Your task to perform on an android device: create a new album in the google photos Image 0: 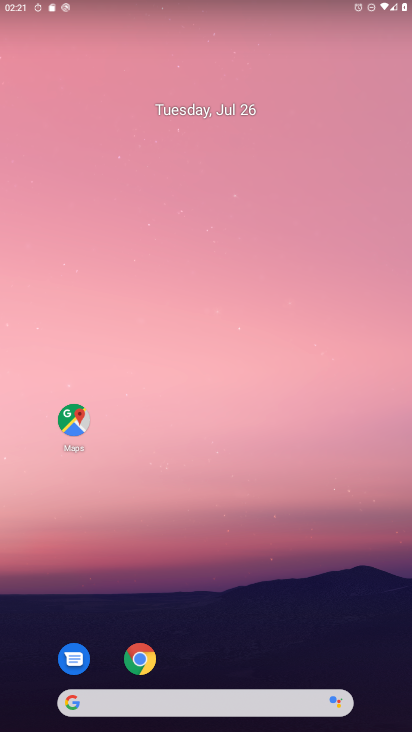
Step 0: press home button
Your task to perform on an android device: create a new album in the google photos Image 1: 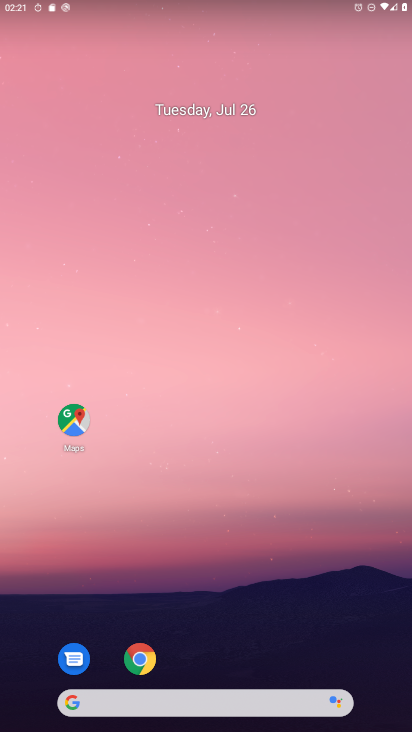
Step 1: press home button
Your task to perform on an android device: create a new album in the google photos Image 2: 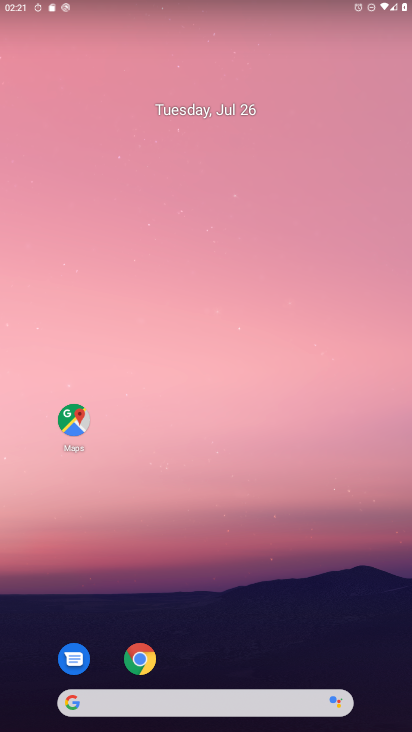
Step 2: drag from (312, 665) to (285, 37)
Your task to perform on an android device: create a new album in the google photos Image 3: 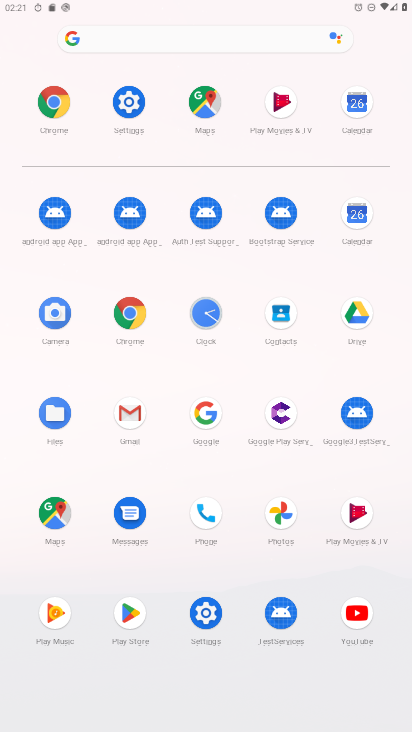
Step 3: click (290, 524)
Your task to perform on an android device: create a new album in the google photos Image 4: 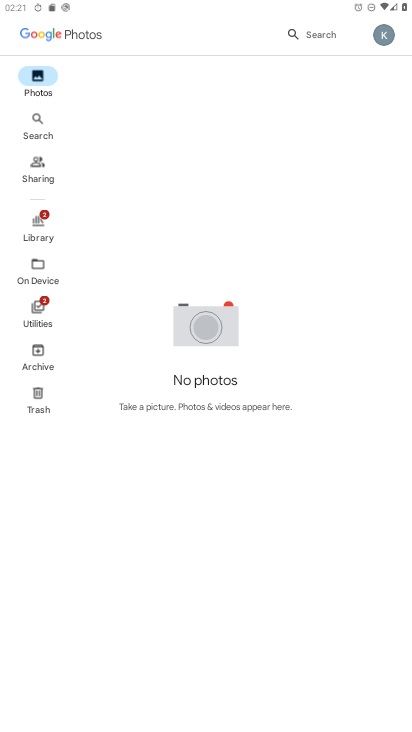
Step 4: task complete